Your task to perform on an android device: Play the last video I watched on Youtube Image 0: 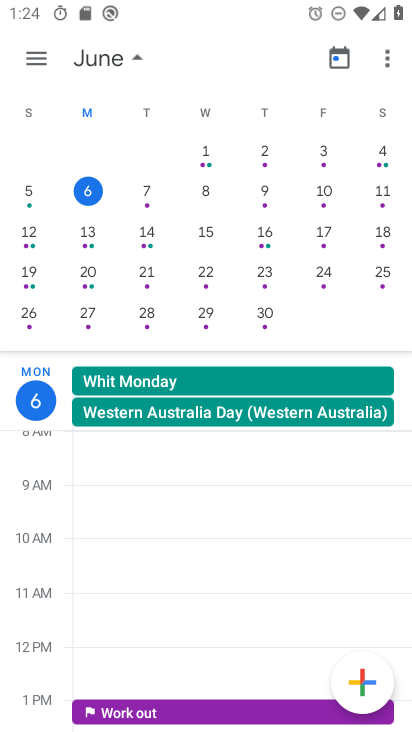
Step 0: press home button
Your task to perform on an android device: Play the last video I watched on Youtube Image 1: 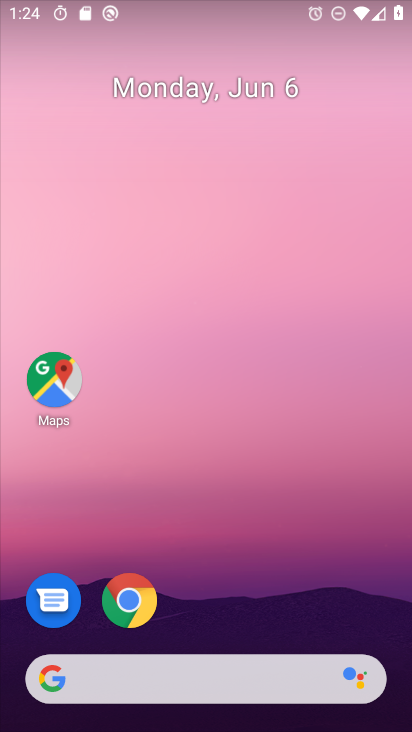
Step 1: drag from (223, 632) to (228, 179)
Your task to perform on an android device: Play the last video I watched on Youtube Image 2: 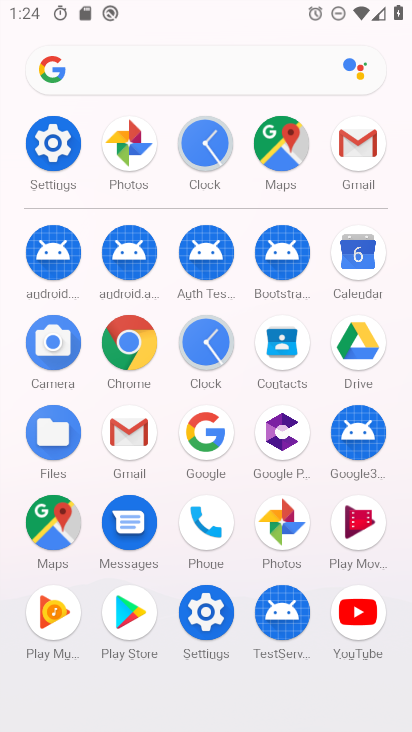
Step 2: click (364, 621)
Your task to perform on an android device: Play the last video I watched on Youtube Image 3: 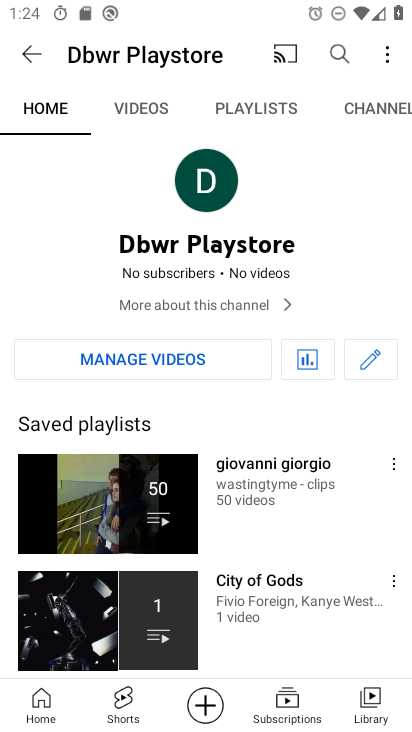
Step 3: click (375, 705)
Your task to perform on an android device: Play the last video I watched on Youtube Image 4: 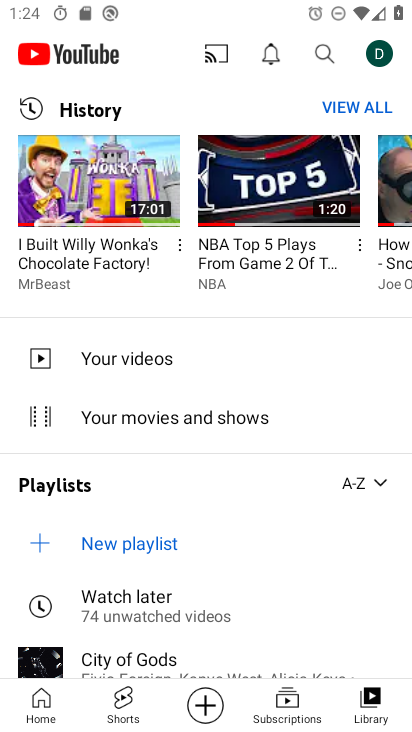
Step 4: click (93, 218)
Your task to perform on an android device: Play the last video I watched on Youtube Image 5: 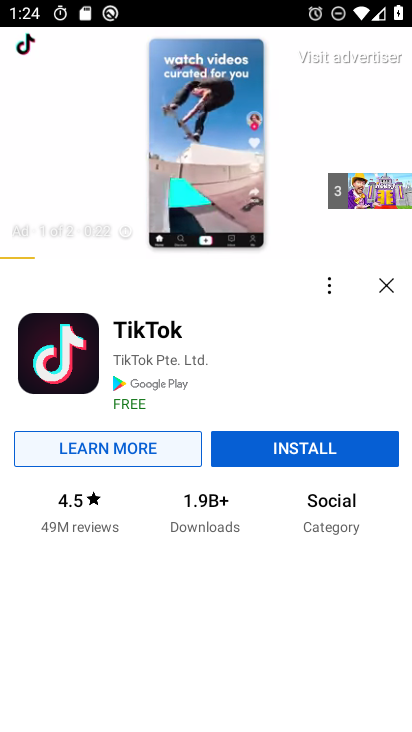
Step 5: task complete